Your task to perform on an android device: turn notification dots on Image 0: 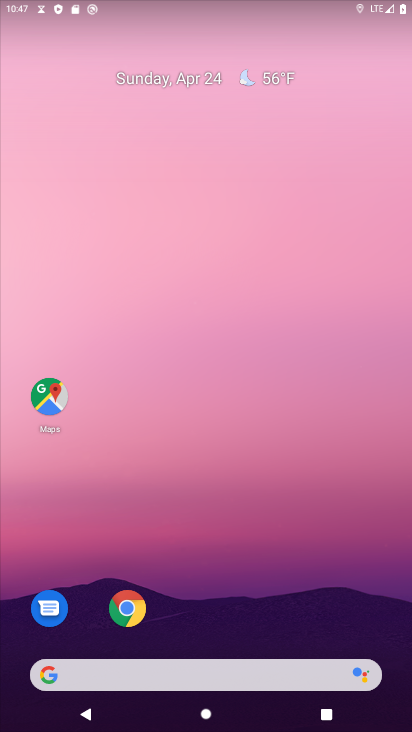
Step 0: drag from (242, 654) to (214, 148)
Your task to perform on an android device: turn notification dots on Image 1: 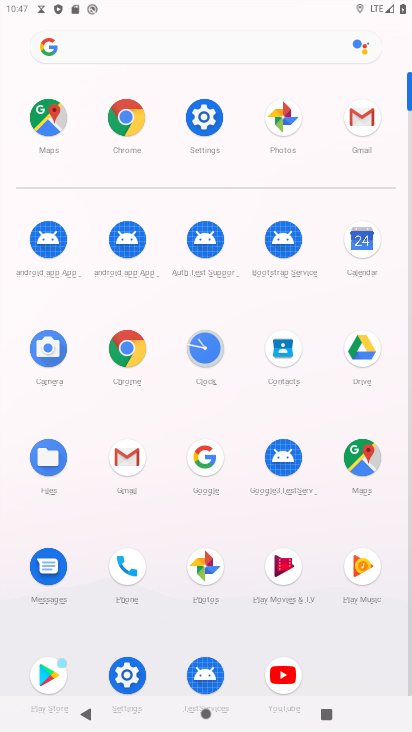
Step 1: click (212, 123)
Your task to perform on an android device: turn notification dots on Image 2: 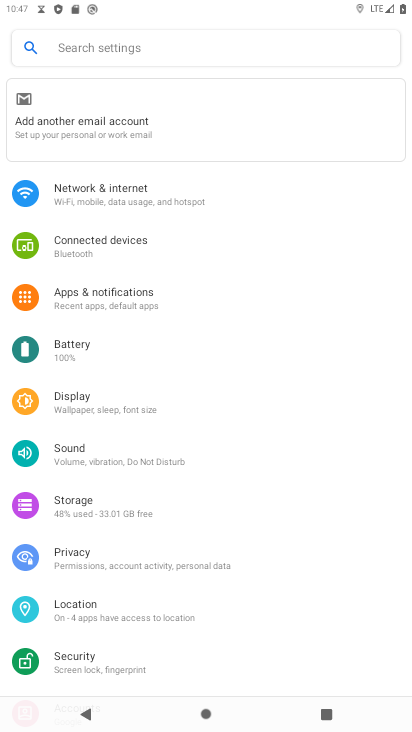
Step 2: click (113, 297)
Your task to perform on an android device: turn notification dots on Image 3: 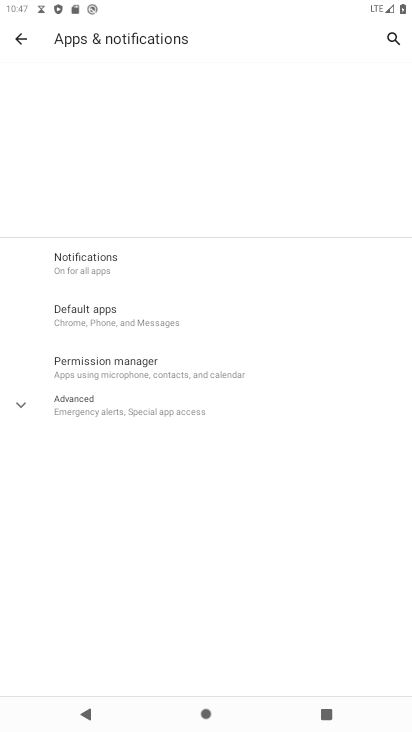
Step 3: click (111, 414)
Your task to perform on an android device: turn notification dots on Image 4: 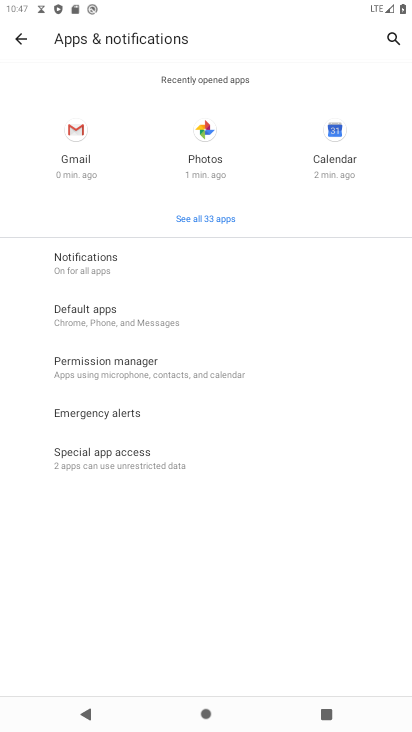
Step 4: click (95, 273)
Your task to perform on an android device: turn notification dots on Image 5: 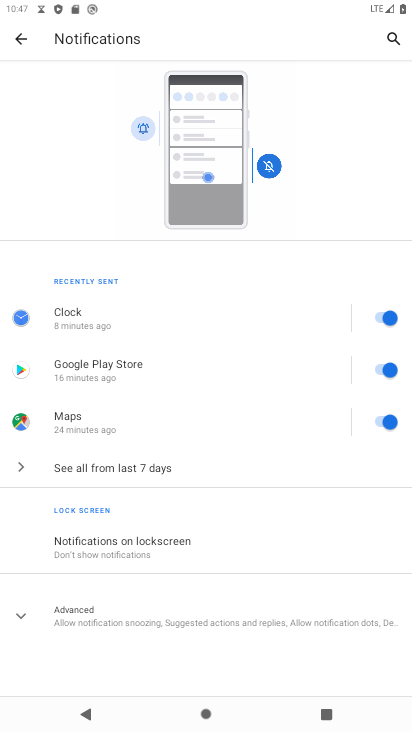
Step 5: click (98, 269)
Your task to perform on an android device: turn notification dots on Image 6: 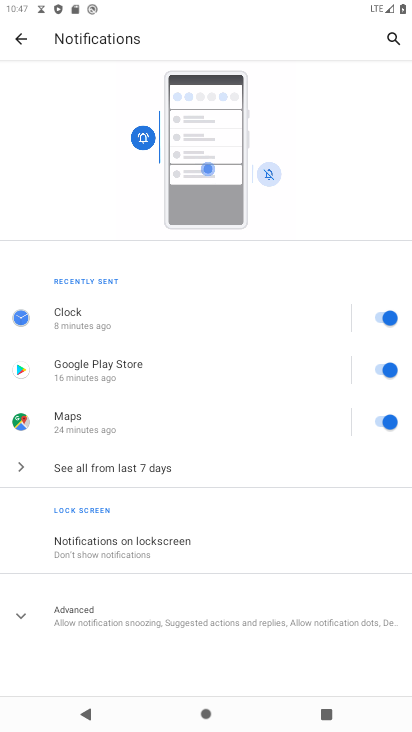
Step 6: click (148, 603)
Your task to perform on an android device: turn notification dots on Image 7: 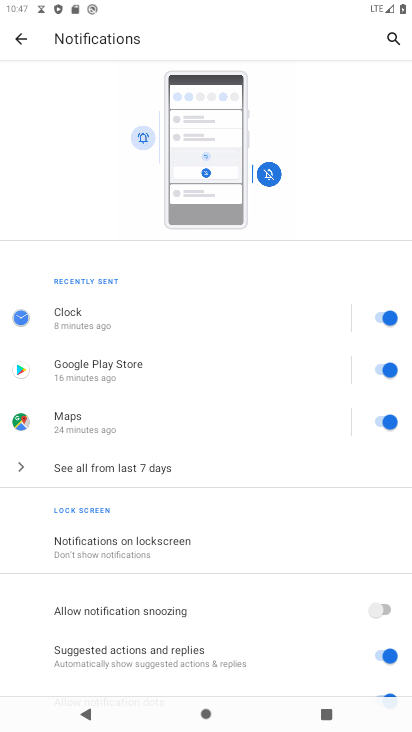
Step 7: task complete